Your task to perform on an android device: toggle data saver in the chrome app Image 0: 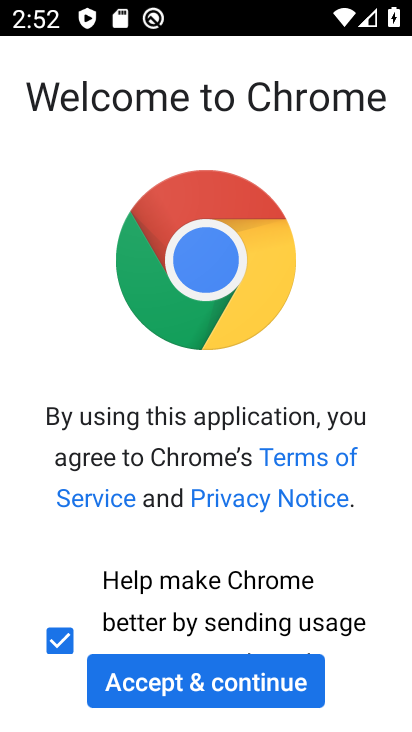
Step 0: press home button
Your task to perform on an android device: toggle data saver in the chrome app Image 1: 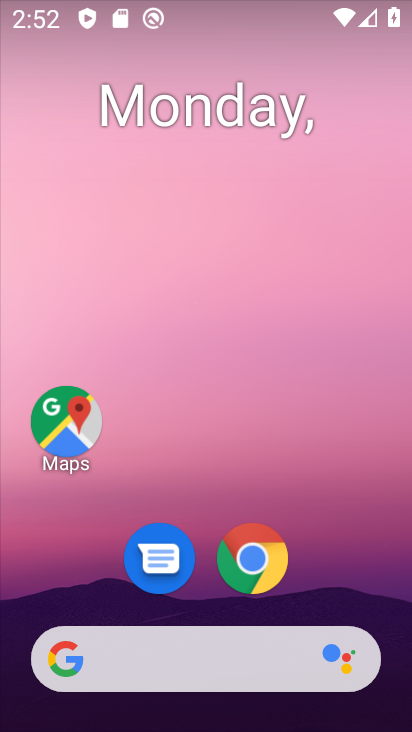
Step 1: click (263, 547)
Your task to perform on an android device: toggle data saver in the chrome app Image 2: 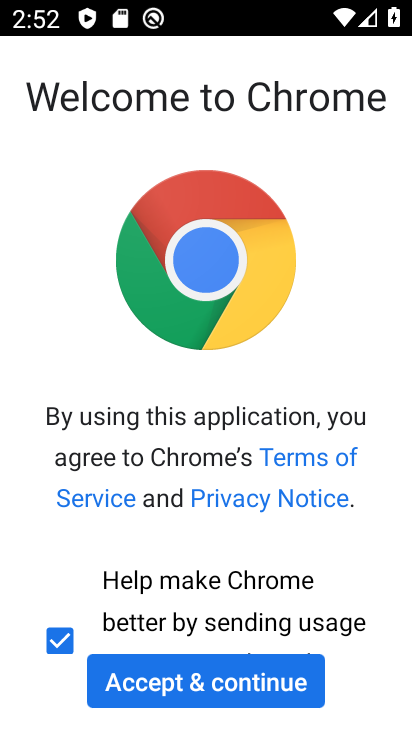
Step 2: click (174, 682)
Your task to perform on an android device: toggle data saver in the chrome app Image 3: 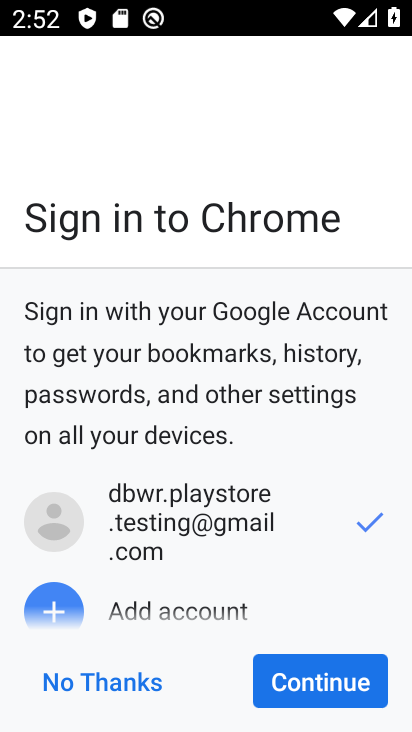
Step 3: click (120, 695)
Your task to perform on an android device: toggle data saver in the chrome app Image 4: 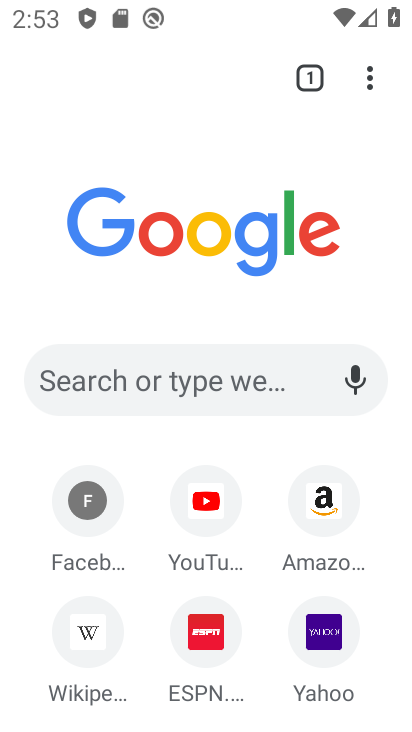
Step 4: click (371, 77)
Your task to perform on an android device: toggle data saver in the chrome app Image 5: 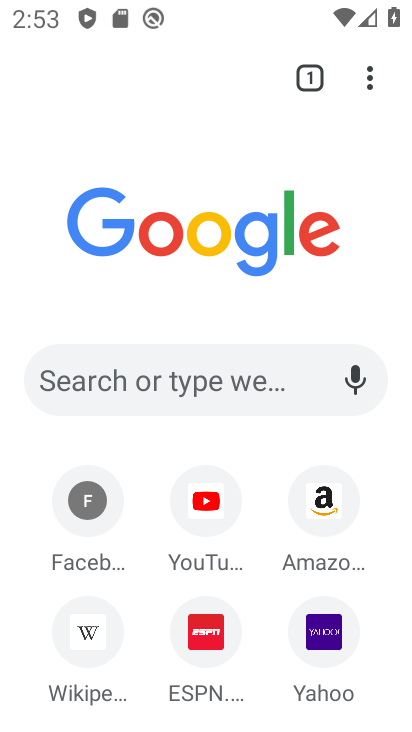
Step 5: click (372, 78)
Your task to perform on an android device: toggle data saver in the chrome app Image 6: 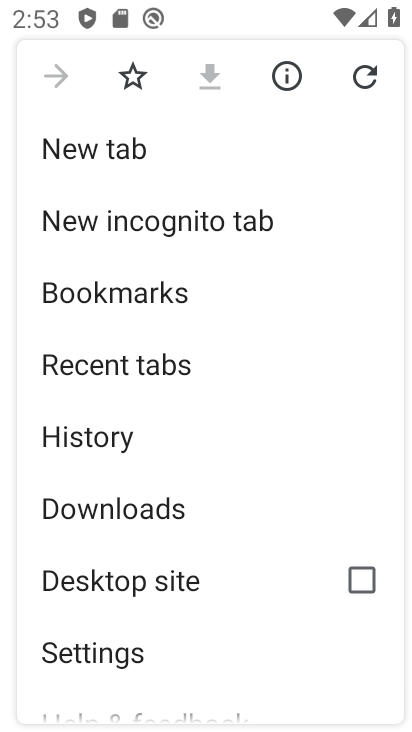
Step 6: drag from (194, 582) to (193, 152)
Your task to perform on an android device: toggle data saver in the chrome app Image 7: 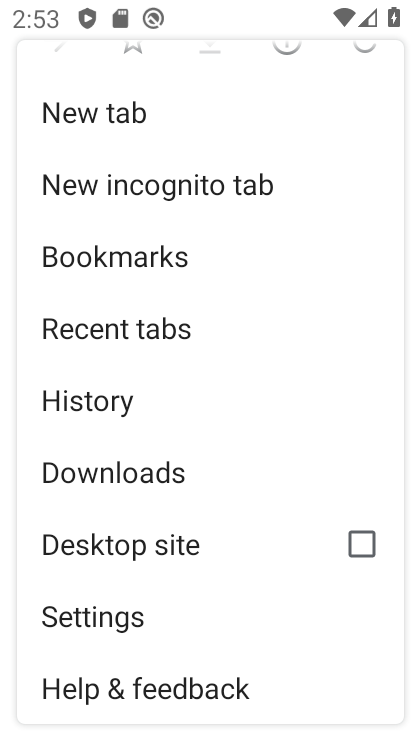
Step 7: click (97, 616)
Your task to perform on an android device: toggle data saver in the chrome app Image 8: 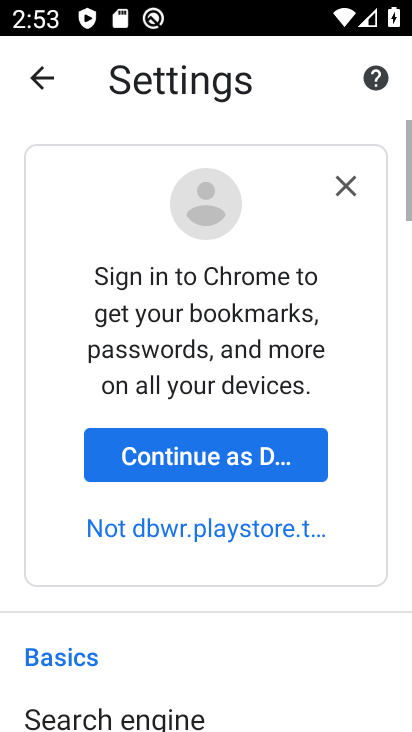
Step 8: drag from (179, 486) to (183, 138)
Your task to perform on an android device: toggle data saver in the chrome app Image 9: 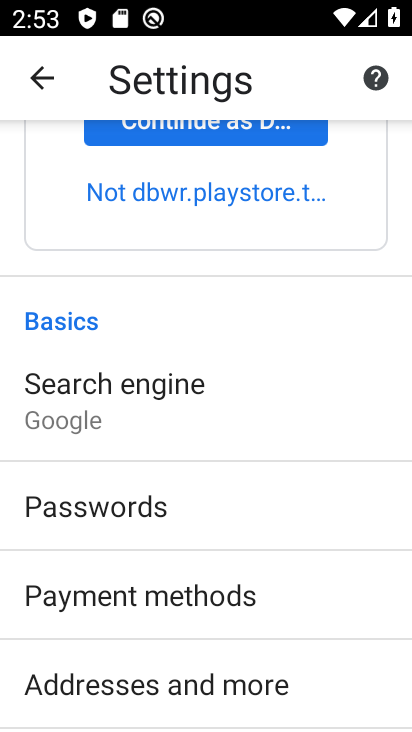
Step 9: drag from (179, 565) to (201, 154)
Your task to perform on an android device: toggle data saver in the chrome app Image 10: 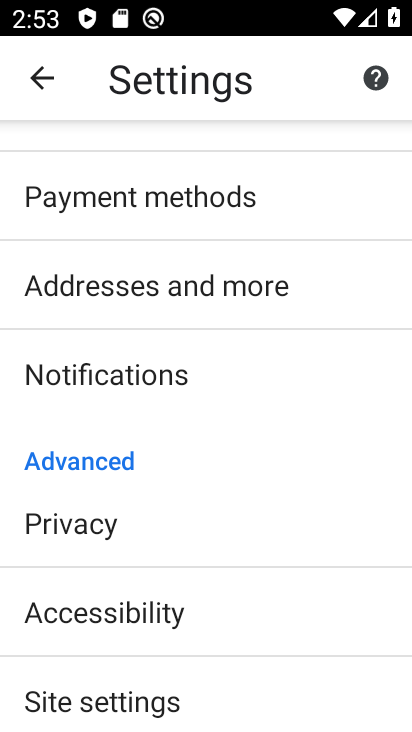
Step 10: drag from (219, 574) to (222, 229)
Your task to perform on an android device: toggle data saver in the chrome app Image 11: 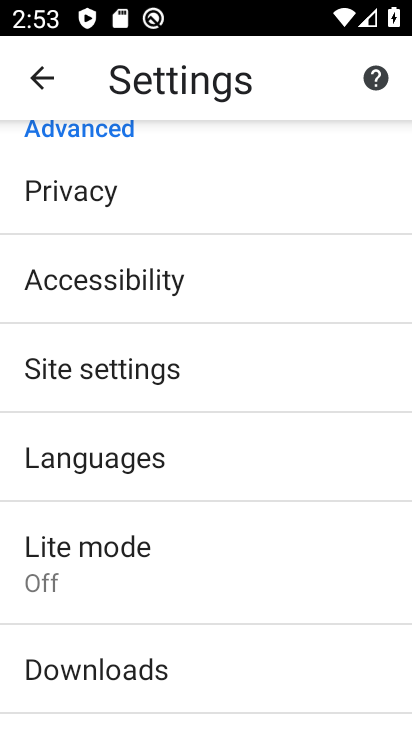
Step 11: click (100, 557)
Your task to perform on an android device: toggle data saver in the chrome app Image 12: 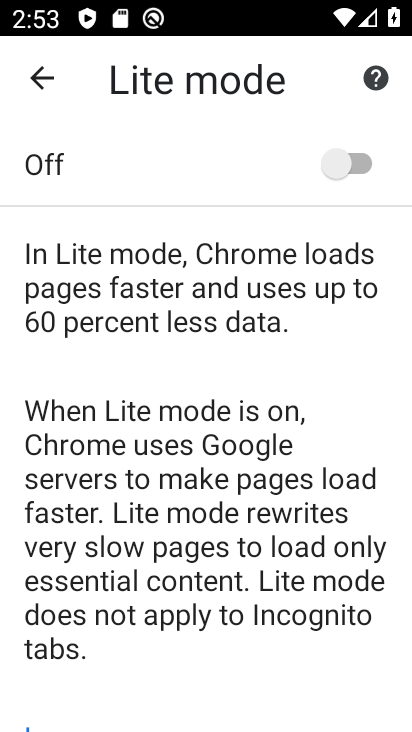
Step 12: click (340, 157)
Your task to perform on an android device: toggle data saver in the chrome app Image 13: 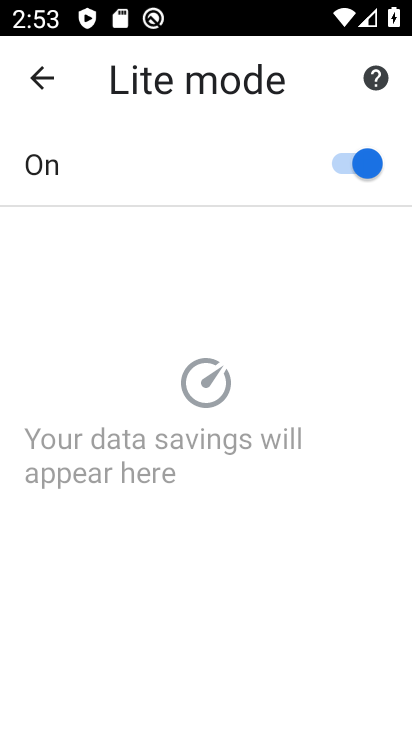
Step 13: task complete